Your task to perform on an android device: Open Wikipedia Image 0: 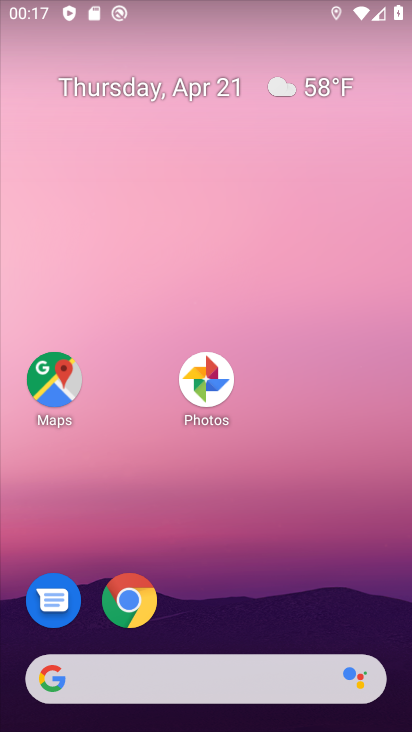
Step 0: click (144, 605)
Your task to perform on an android device: Open Wikipedia Image 1: 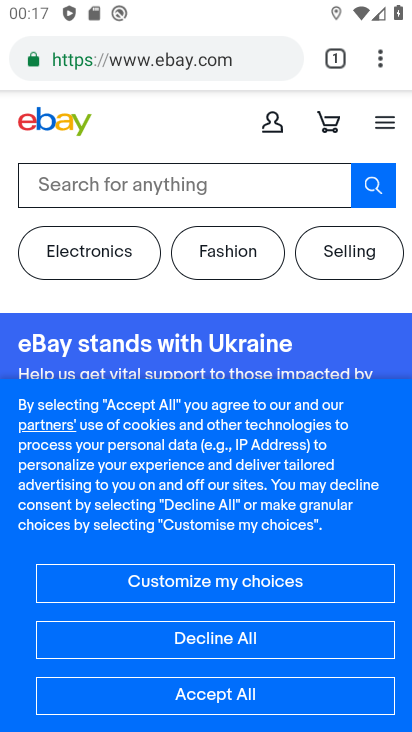
Step 1: click (338, 65)
Your task to perform on an android device: Open Wikipedia Image 2: 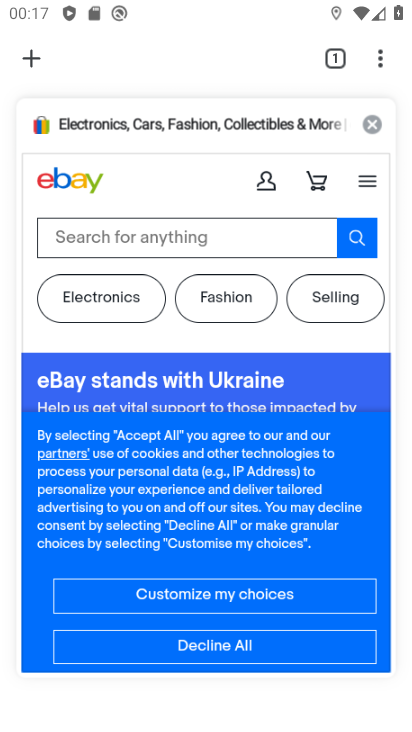
Step 2: click (27, 54)
Your task to perform on an android device: Open Wikipedia Image 3: 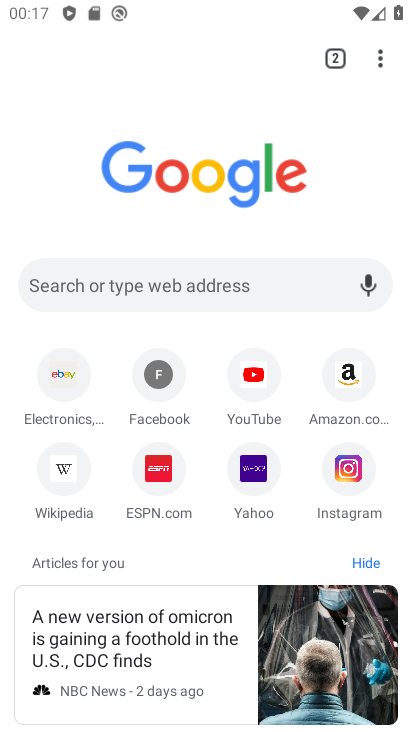
Step 3: click (77, 458)
Your task to perform on an android device: Open Wikipedia Image 4: 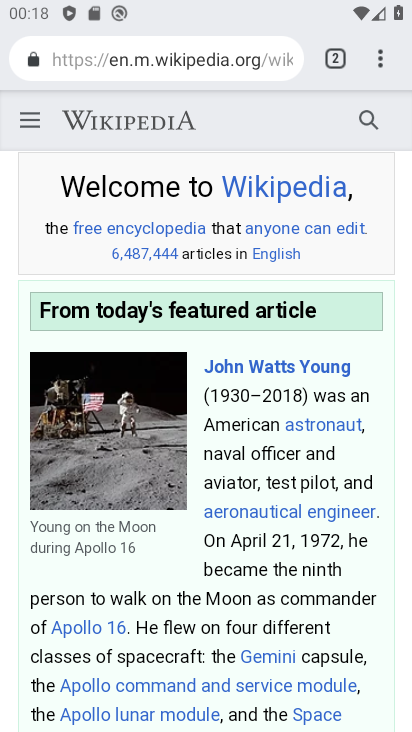
Step 4: task complete